Your task to perform on an android device: open app "Cash App" (install if not already installed) Image 0: 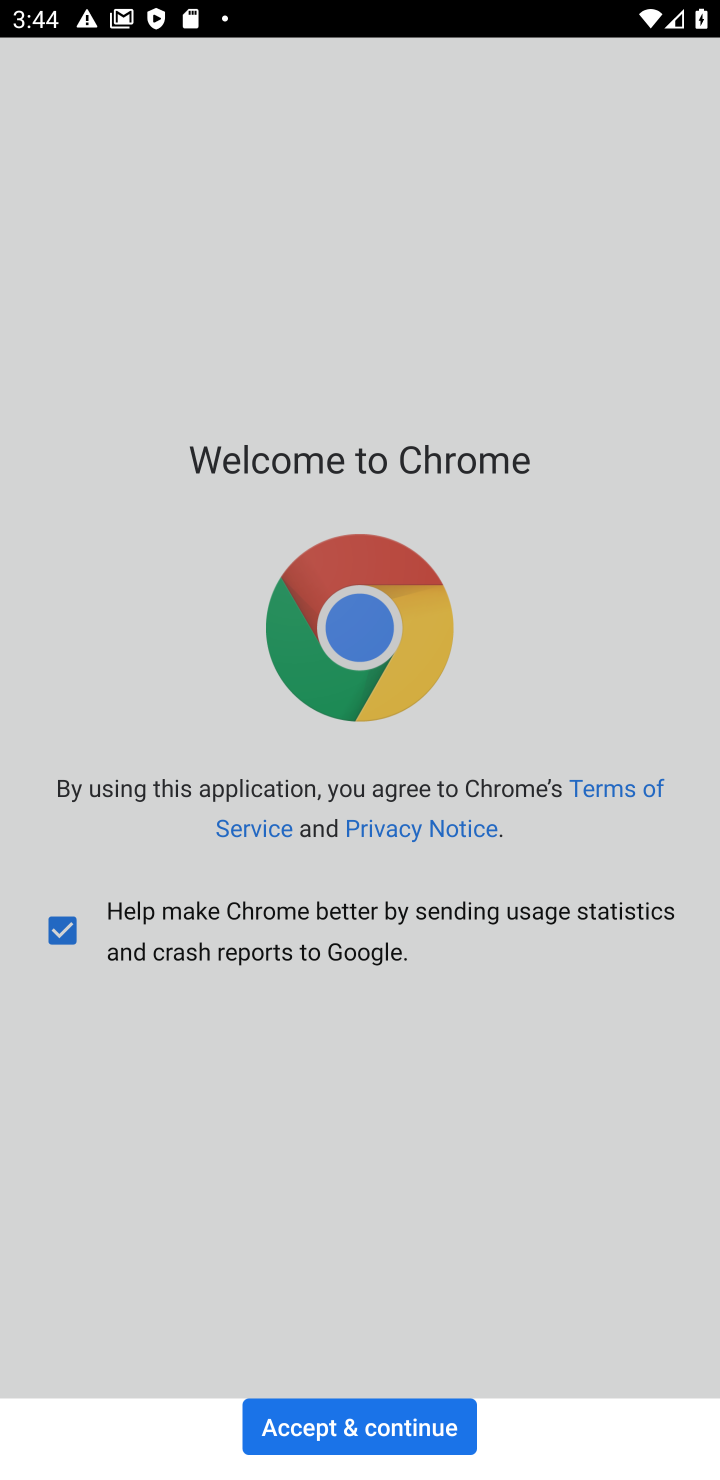
Step 0: press home button
Your task to perform on an android device: open app "Cash App" (install if not already installed) Image 1: 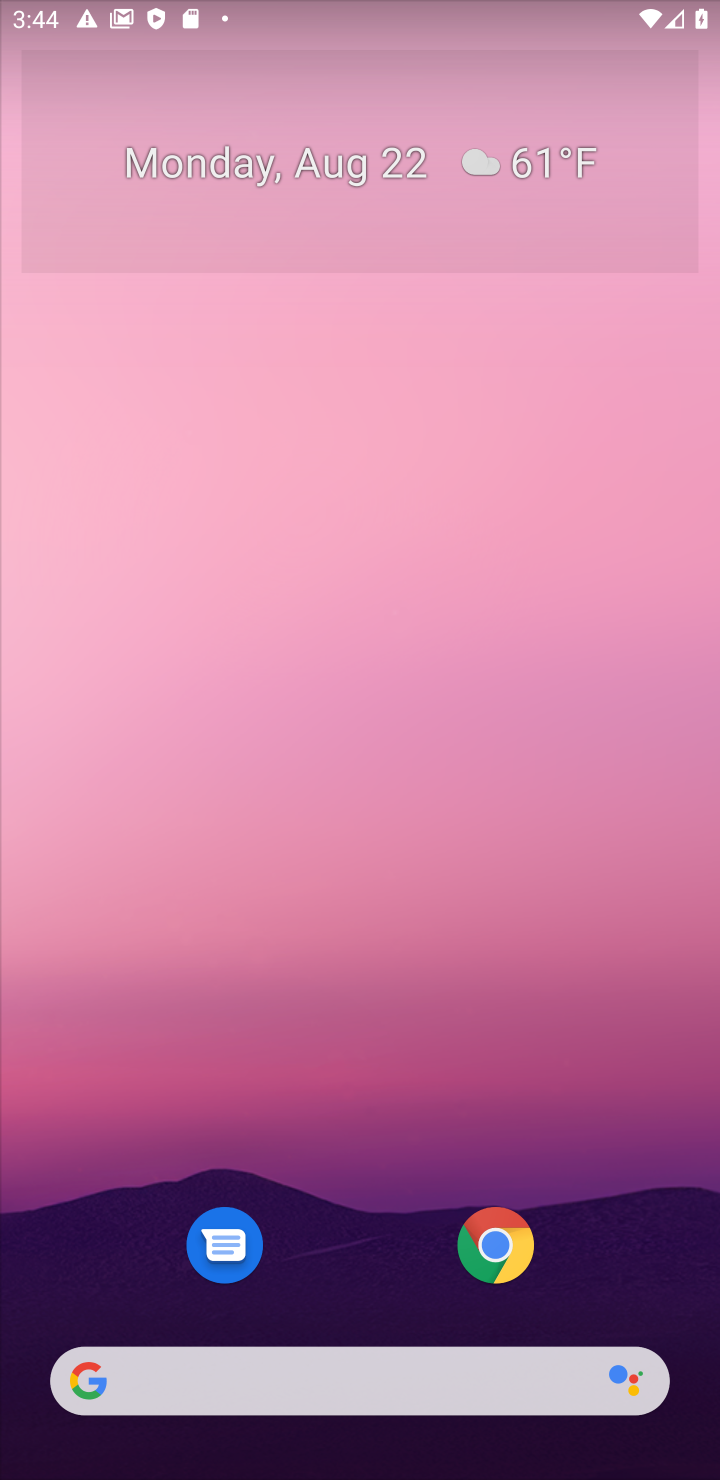
Step 1: drag from (629, 1287) to (641, 134)
Your task to perform on an android device: open app "Cash App" (install if not already installed) Image 2: 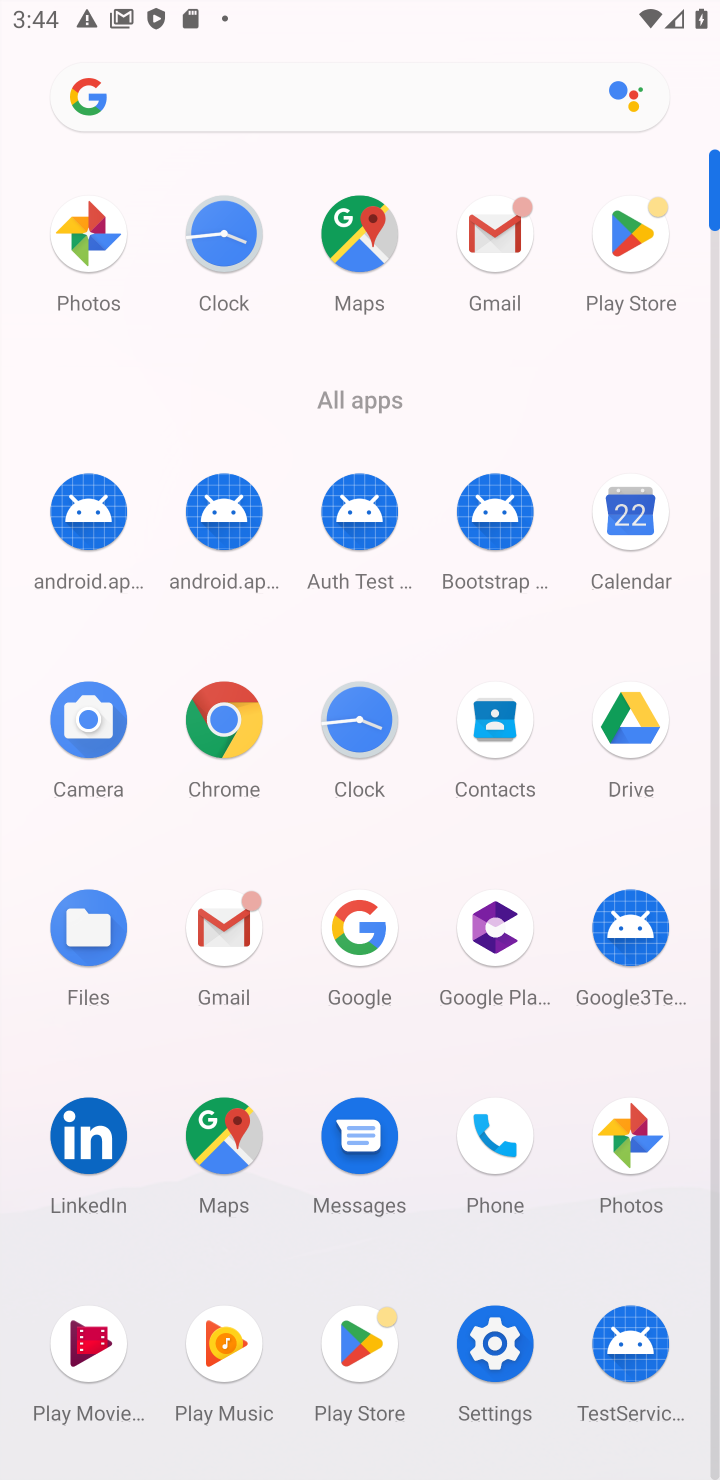
Step 2: click (647, 246)
Your task to perform on an android device: open app "Cash App" (install if not already installed) Image 3: 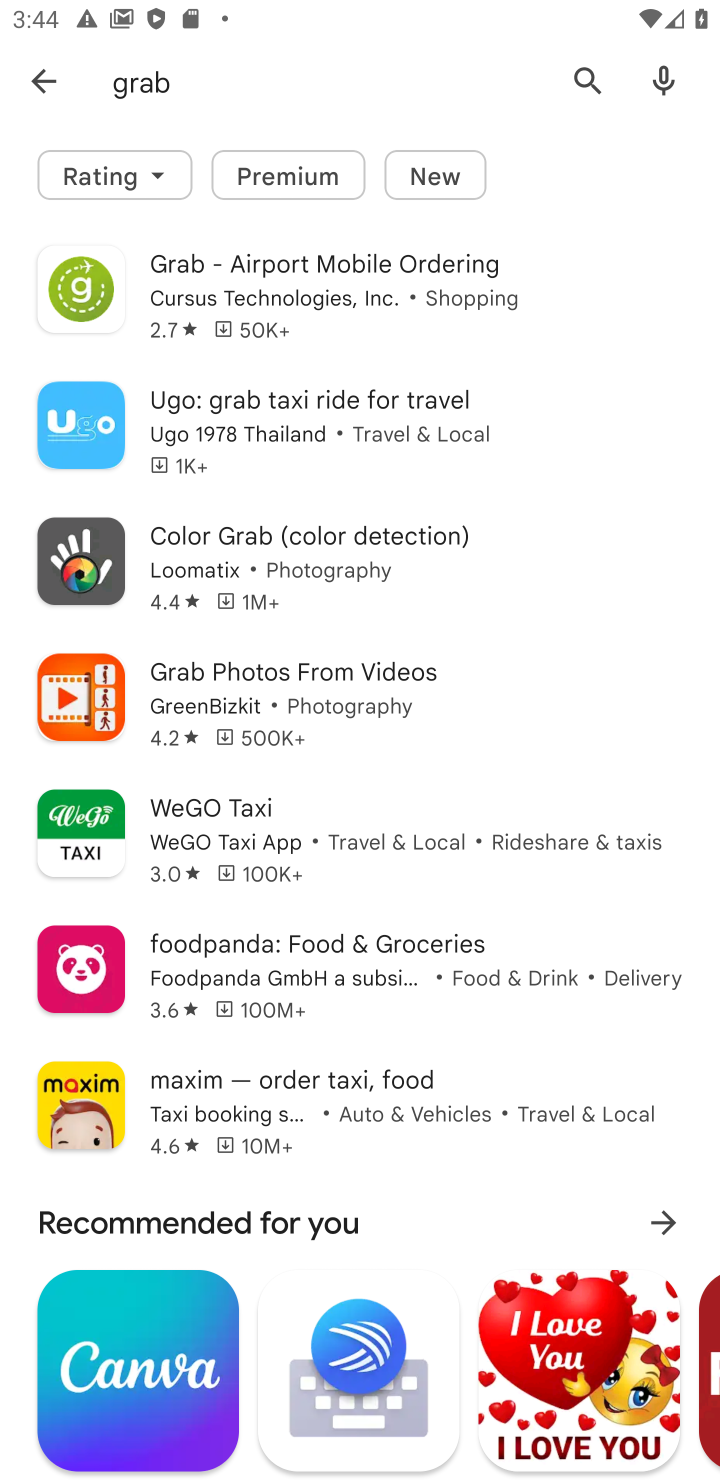
Step 3: press back button
Your task to perform on an android device: open app "Cash App" (install if not already installed) Image 4: 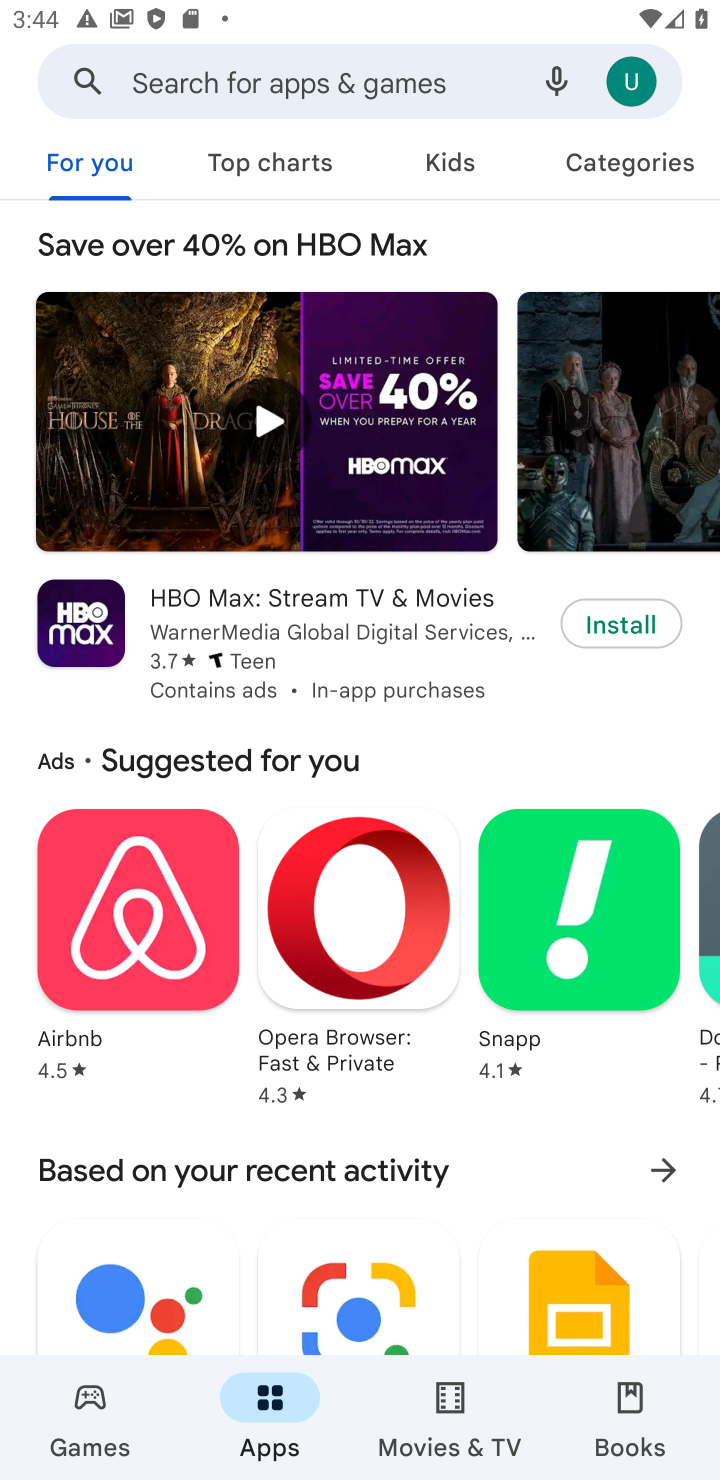
Step 4: click (200, 80)
Your task to perform on an android device: open app "Cash App" (install if not already installed) Image 5: 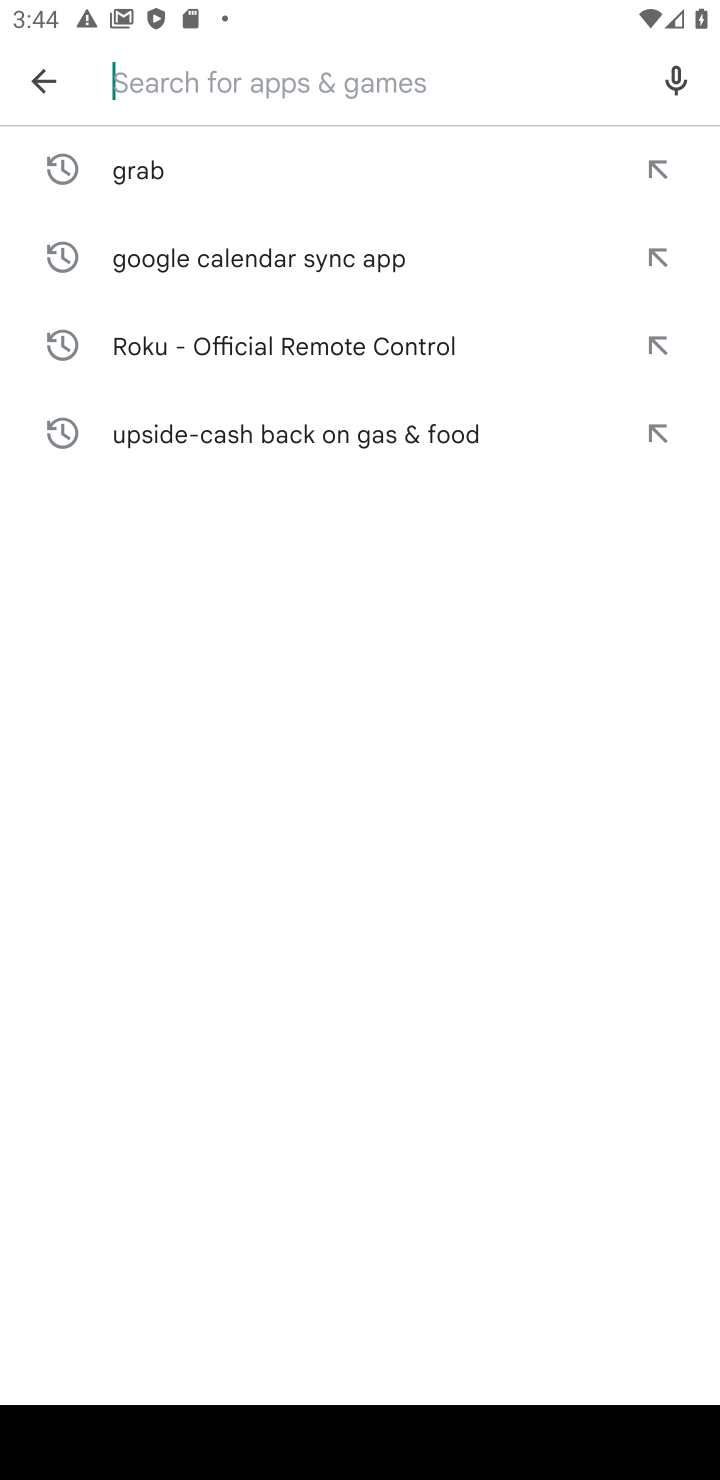
Step 5: press enter
Your task to perform on an android device: open app "Cash App" (install if not already installed) Image 6: 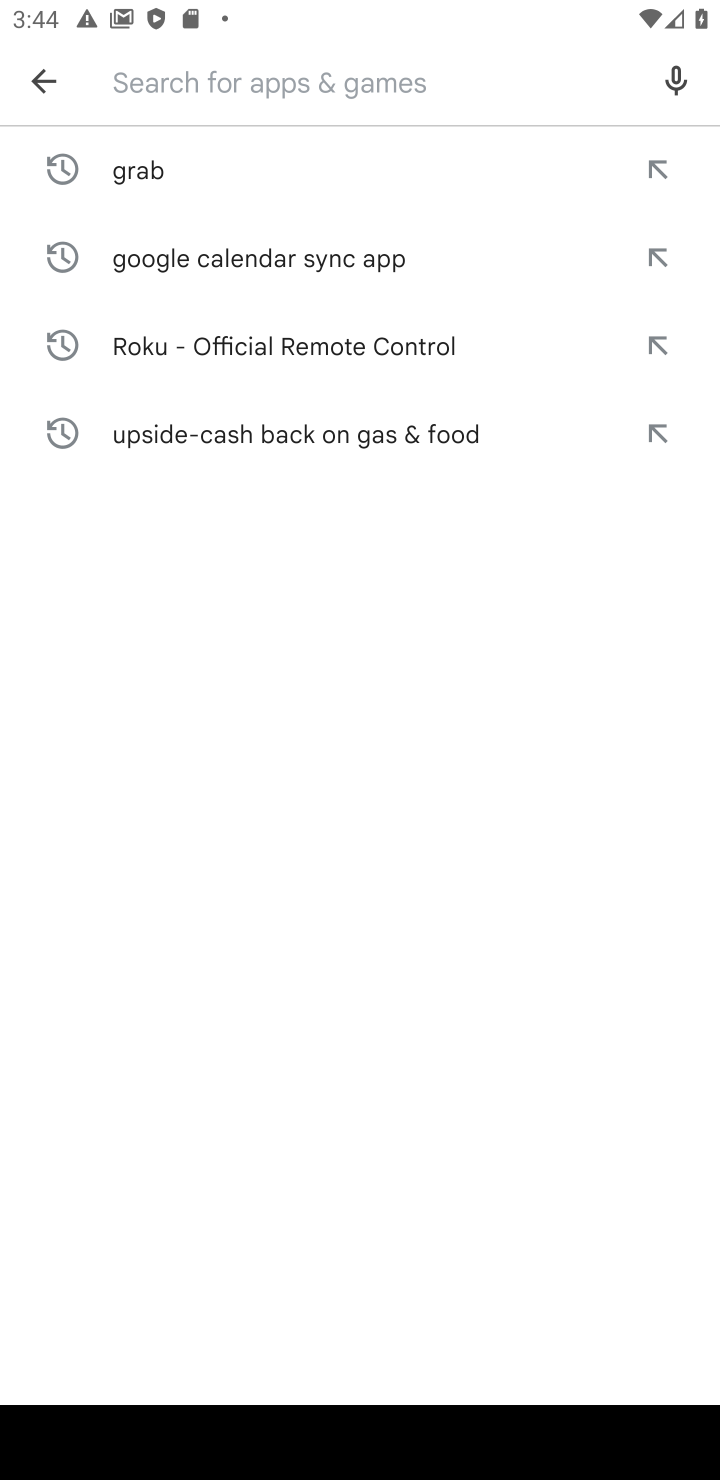
Step 6: type "Cash App"
Your task to perform on an android device: open app "Cash App" (install if not already installed) Image 7: 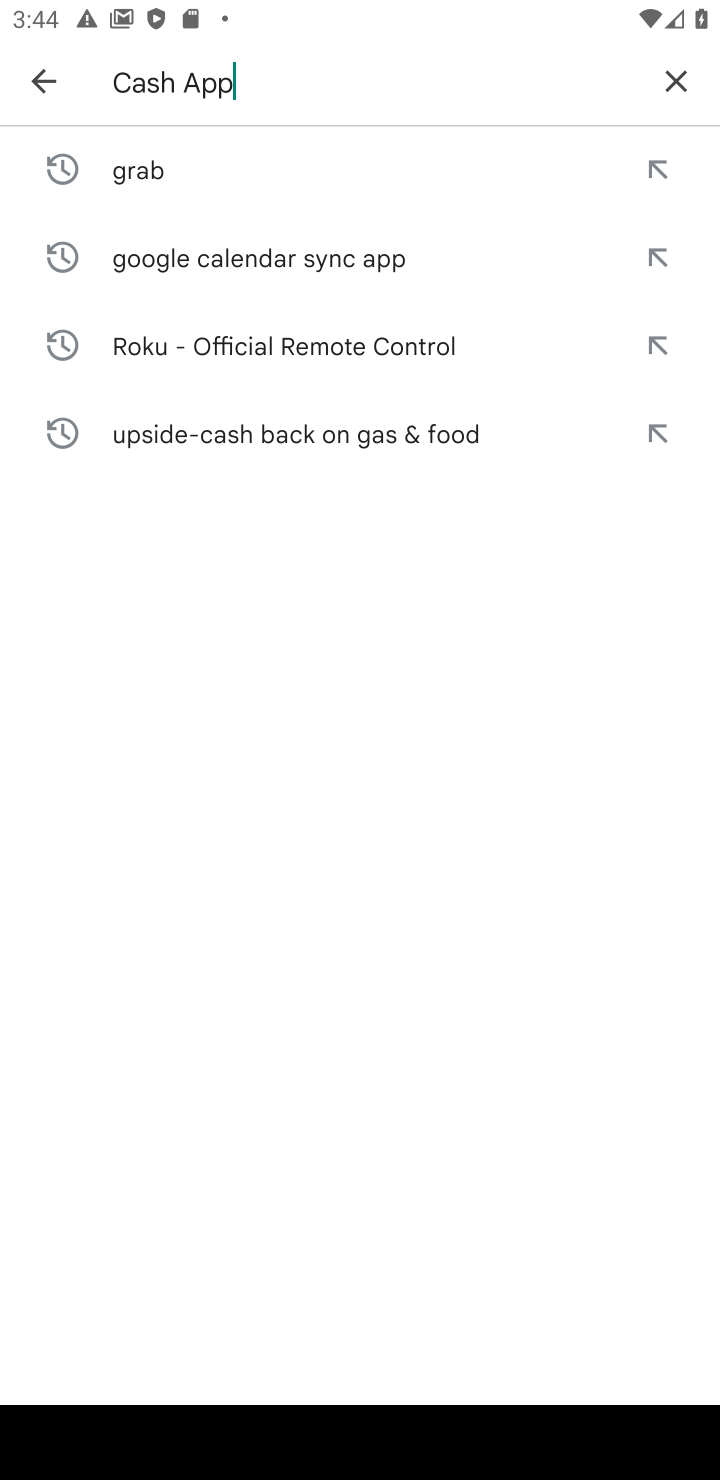
Step 7: press enter
Your task to perform on an android device: open app "Cash App" (install if not already installed) Image 8: 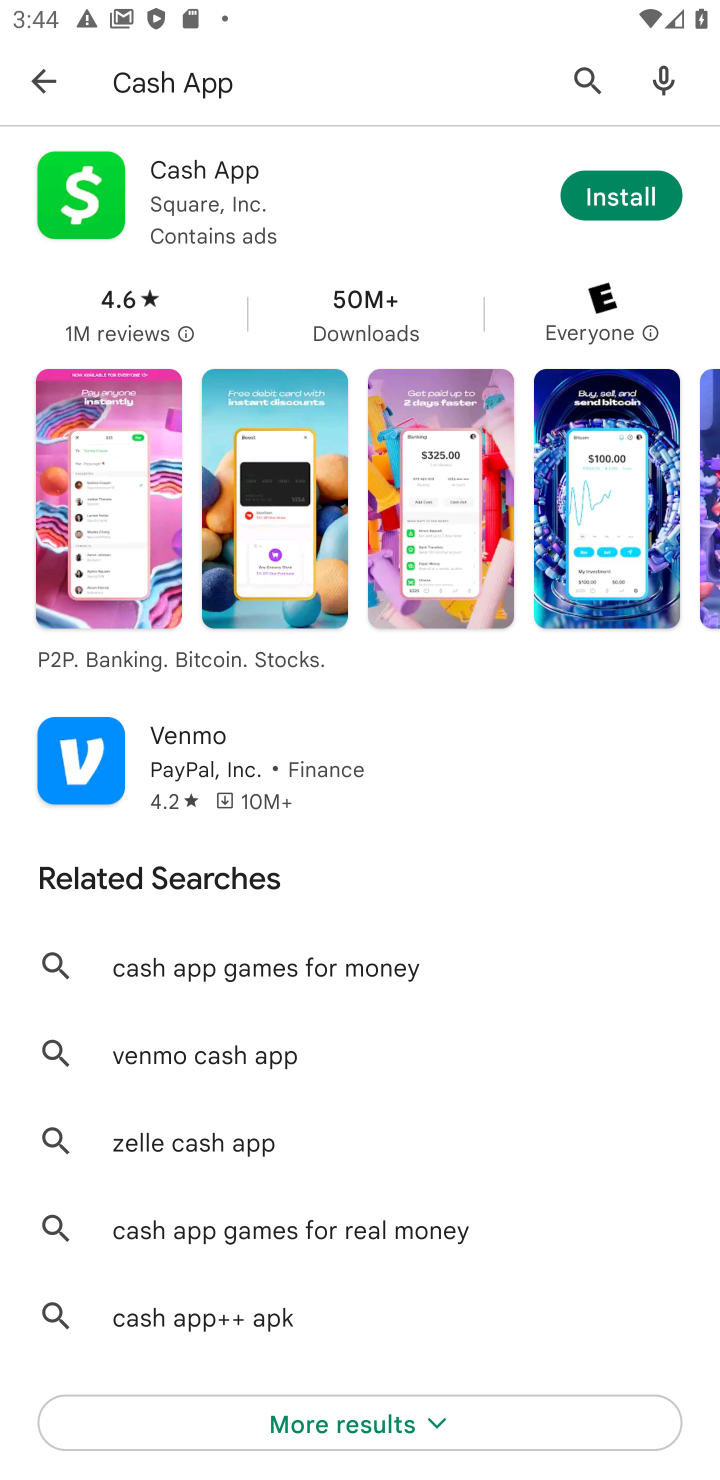
Step 8: click (612, 211)
Your task to perform on an android device: open app "Cash App" (install if not already installed) Image 9: 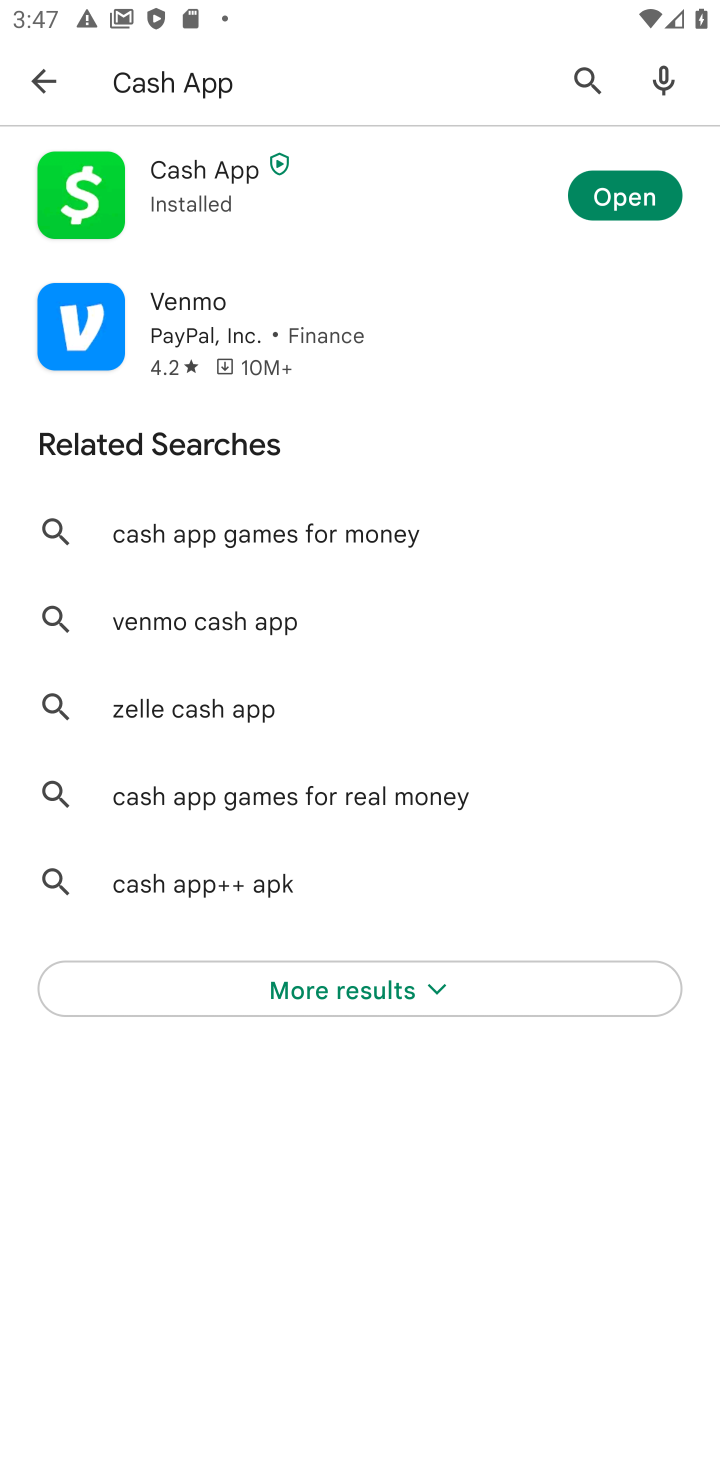
Step 9: click (624, 198)
Your task to perform on an android device: open app "Cash App" (install if not already installed) Image 10: 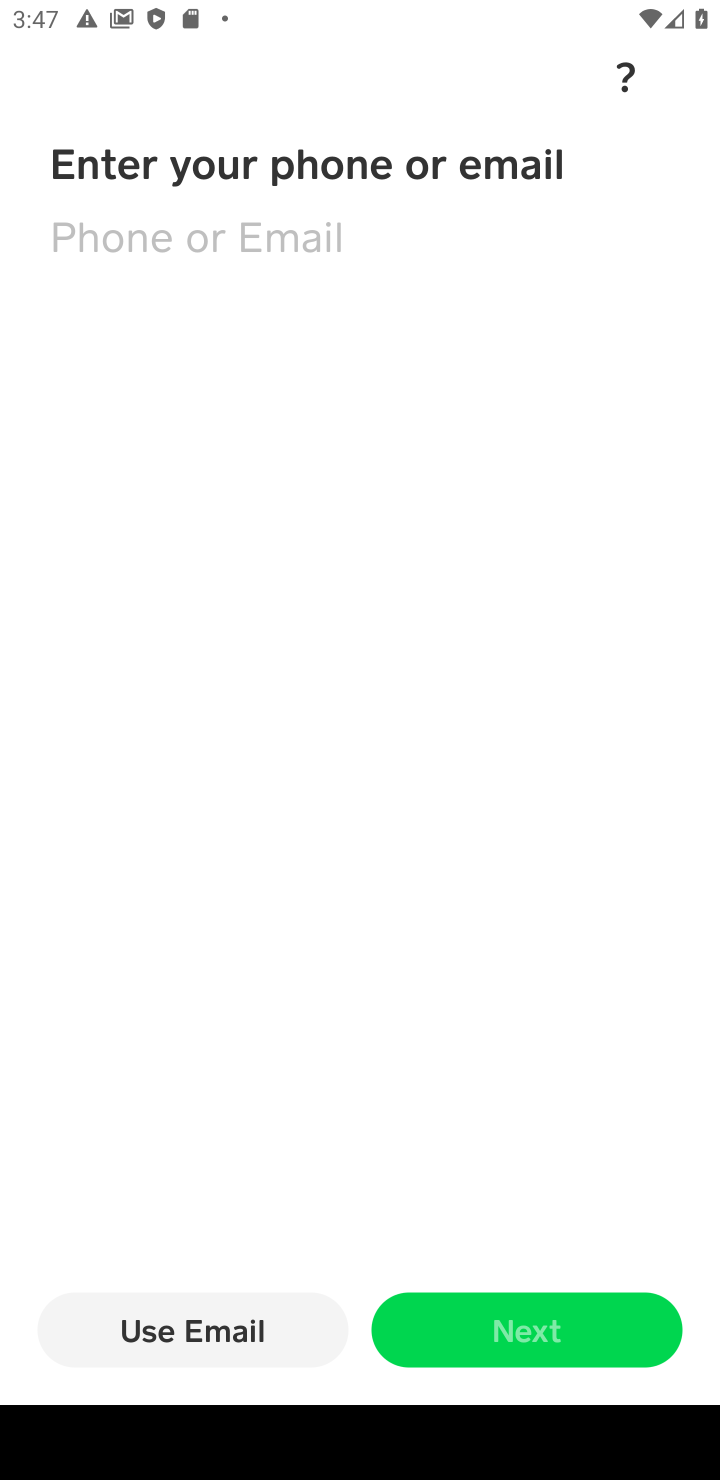
Step 10: task complete